Your task to perform on an android device: Open Youtube and go to "Your channel" Image 0: 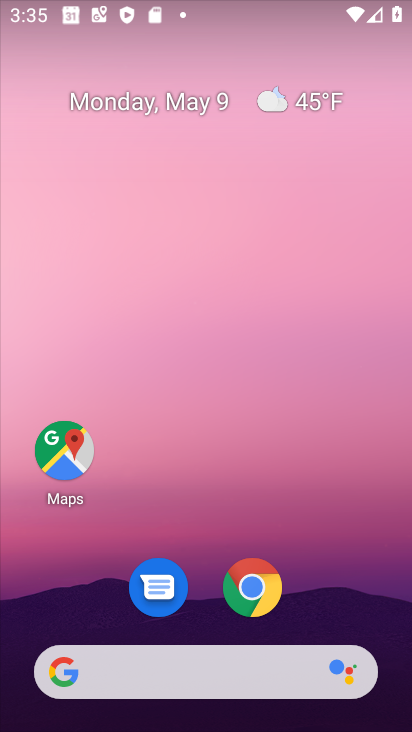
Step 0: click (389, 242)
Your task to perform on an android device: Open Youtube and go to "Your channel" Image 1: 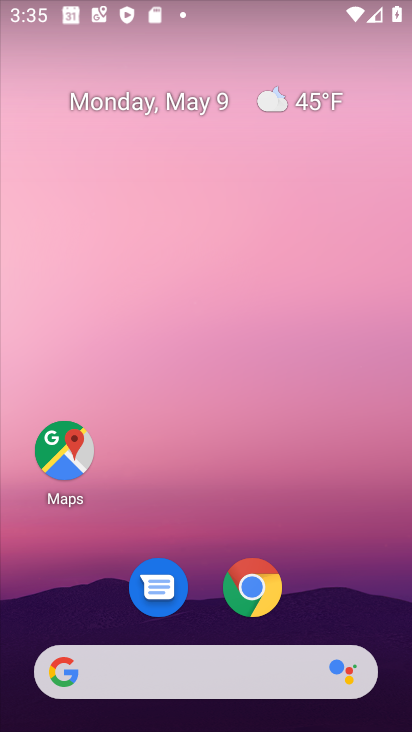
Step 1: drag from (400, 667) to (364, 58)
Your task to perform on an android device: Open Youtube and go to "Your channel" Image 2: 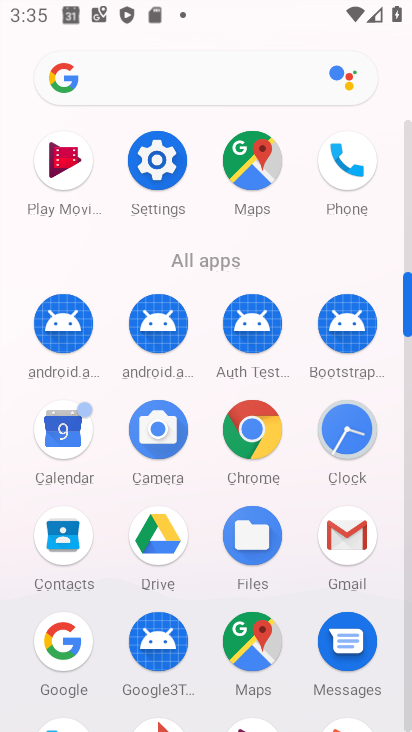
Step 2: drag from (410, 210) to (410, 125)
Your task to perform on an android device: Open Youtube and go to "Your channel" Image 3: 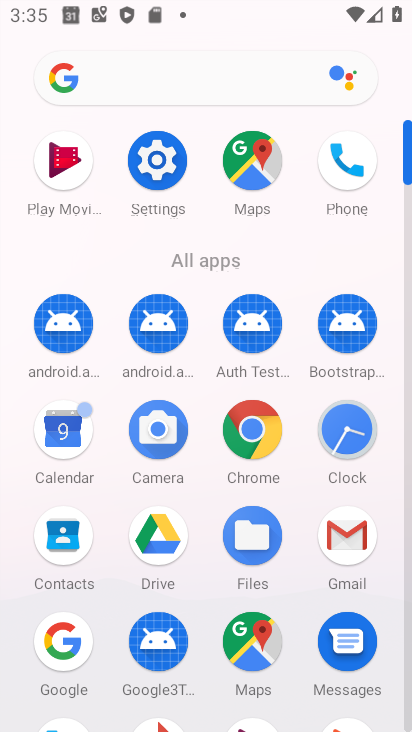
Step 3: drag from (407, 131) to (385, 20)
Your task to perform on an android device: Open Youtube and go to "Your channel" Image 4: 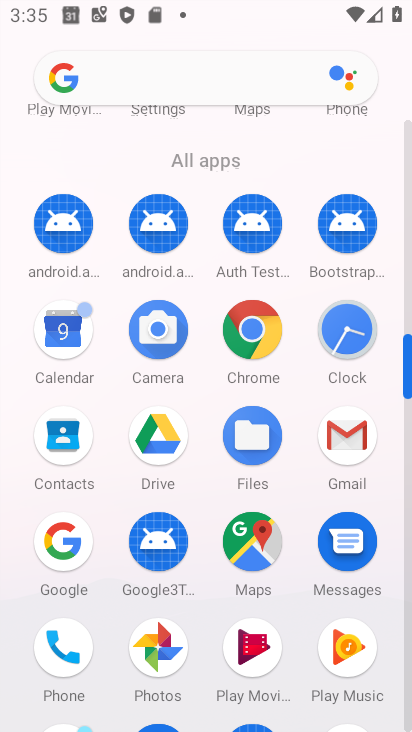
Step 4: click (408, 347)
Your task to perform on an android device: Open Youtube and go to "Your channel" Image 5: 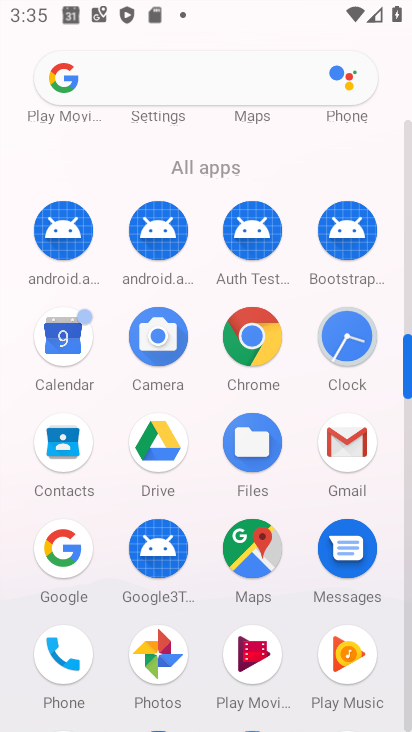
Step 5: drag from (406, 344) to (411, 245)
Your task to perform on an android device: Open Youtube and go to "Your channel" Image 6: 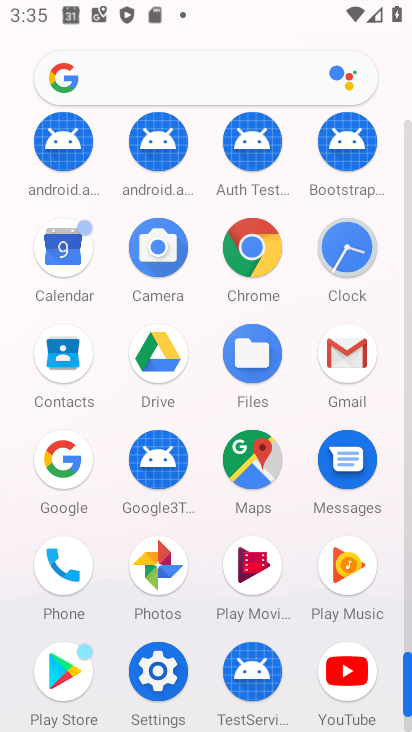
Step 6: click (347, 662)
Your task to perform on an android device: Open Youtube and go to "Your channel" Image 7: 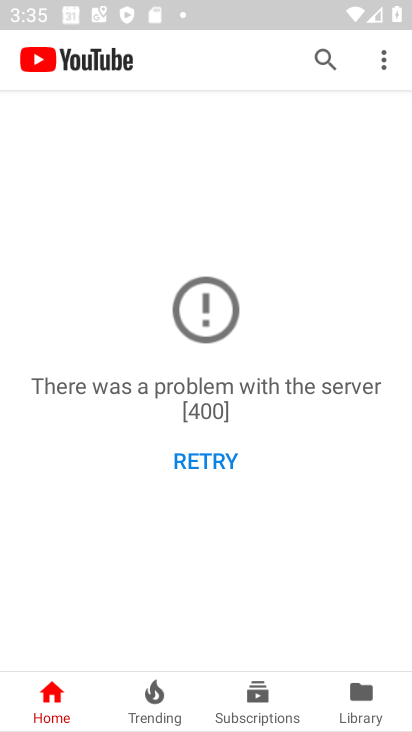
Step 7: click (384, 57)
Your task to perform on an android device: Open Youtube and go to "Your channel" Image 8: 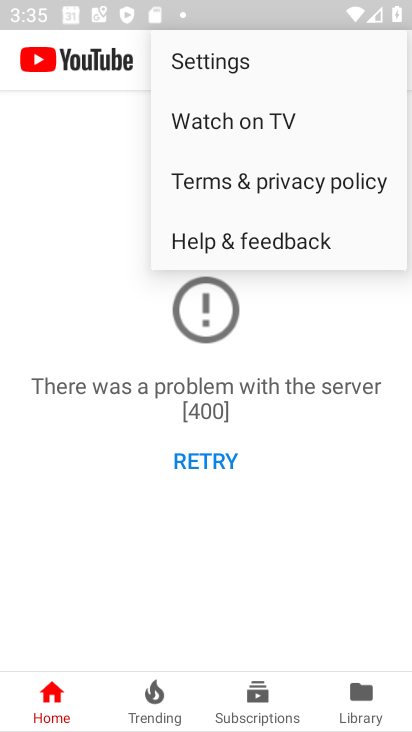
Step 8: click (100, 192)
Your task to perform on an android device: Open Youtube and go to "Your channel" Image 9: 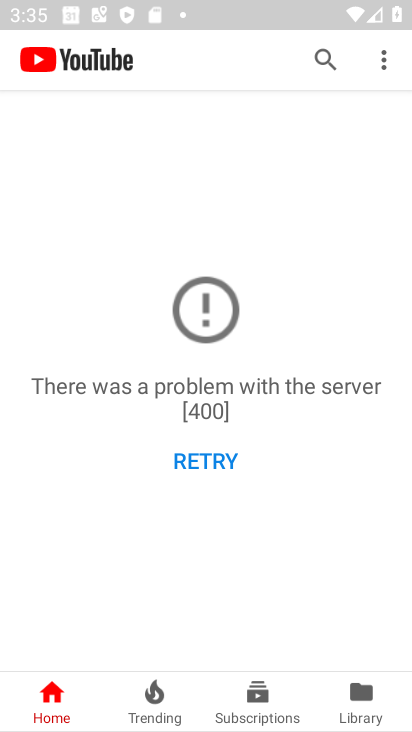
Step 9: task complete